Your task to perform on an android device: Add corsair k70 to the cart on costco, then select checkout. Image 0: 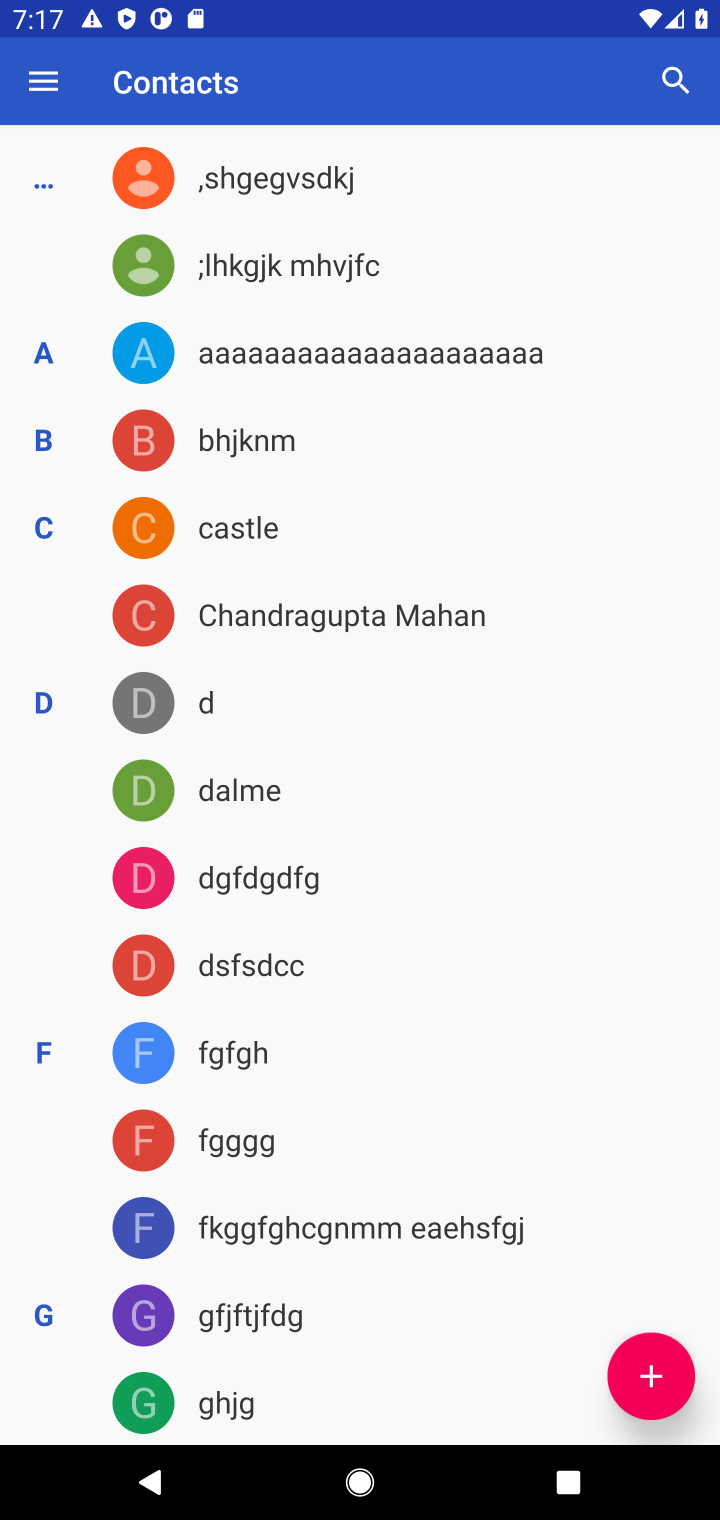
Step 0: press home button
Your task to perform on an android device: Add corsair k70 to the cart on costco, then select checkout. Image 1: 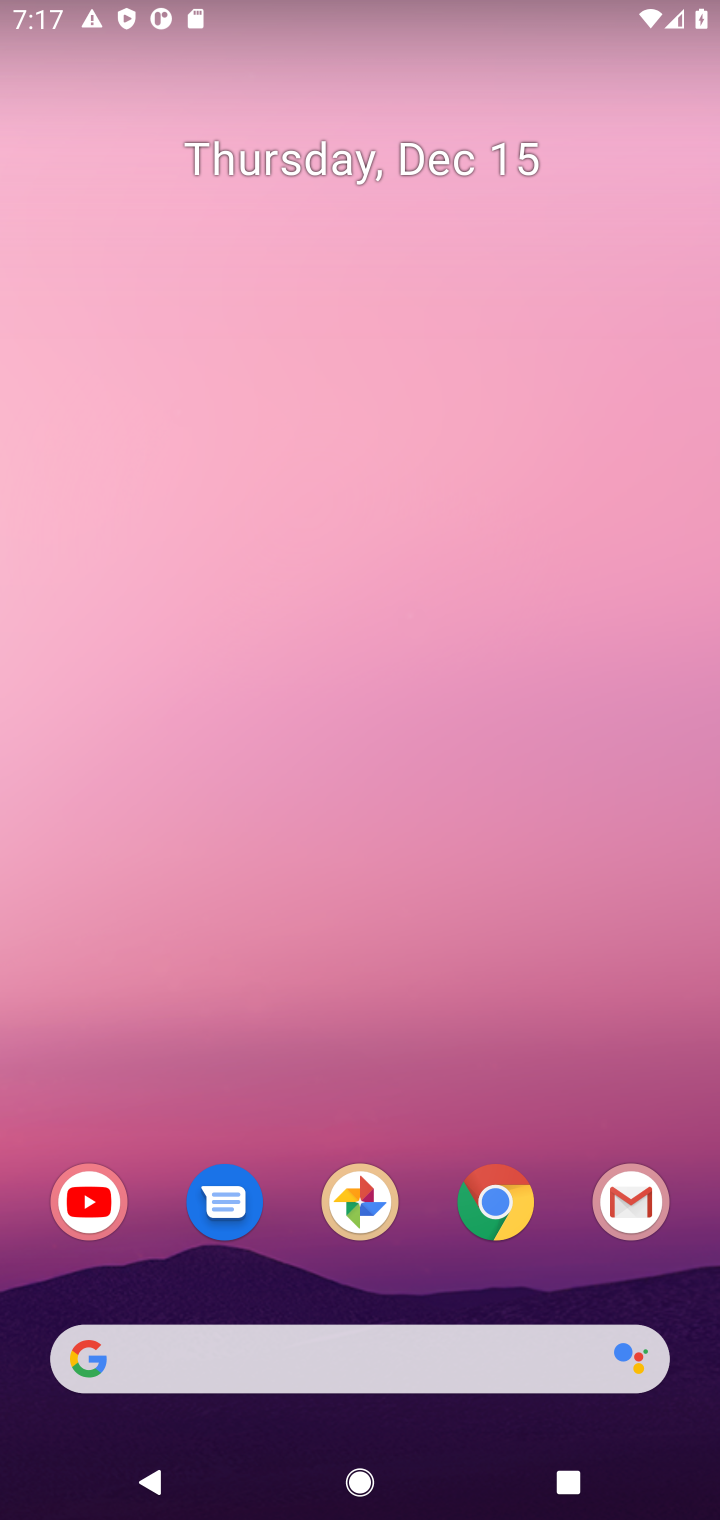
Step 1: click (488, 1196)
Your task to perform on an android device: Add corsair k70 to the cart on costco, then select checkout. Image 2: 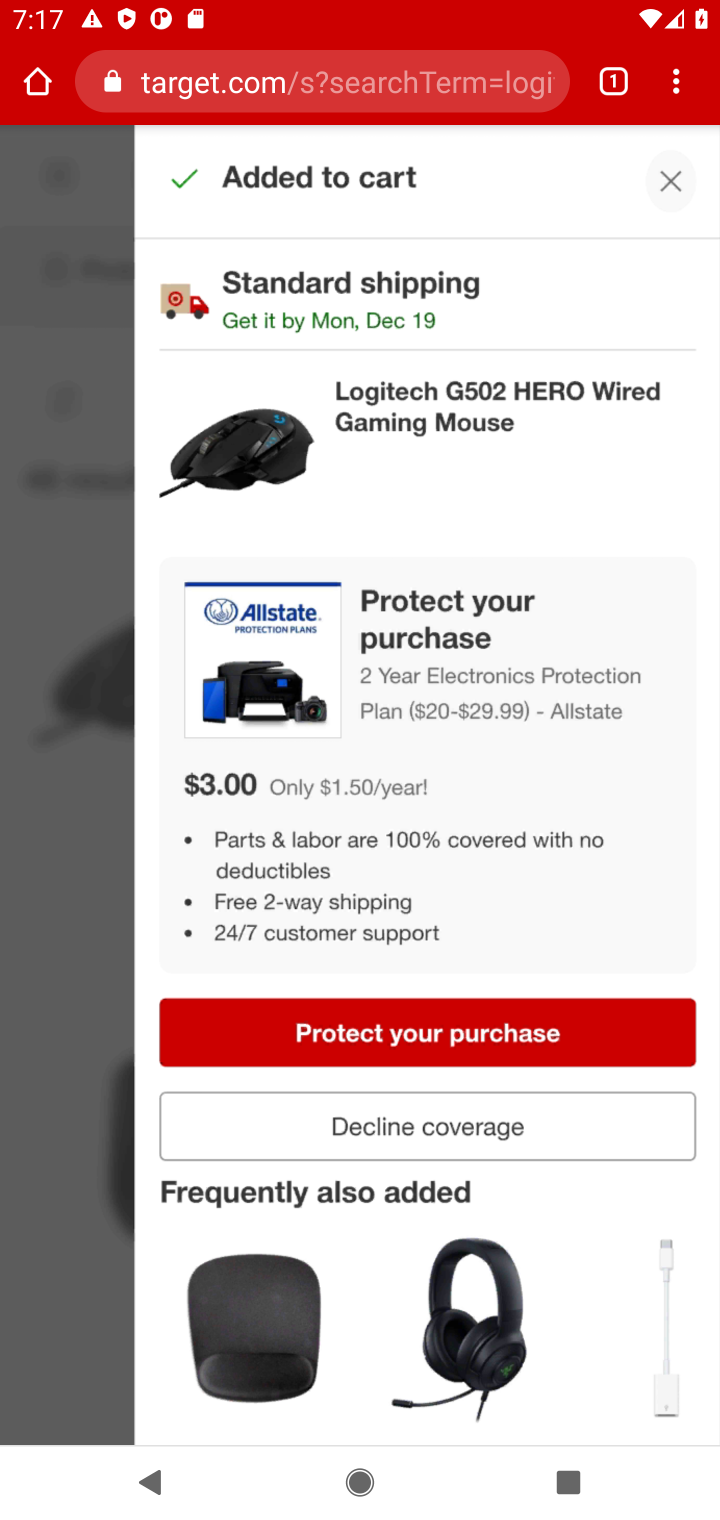
Step 2: click (194, 87)
Your task to perform on an android device: Add corsair k70 to the cart on costco, then select checkout. Image 3: 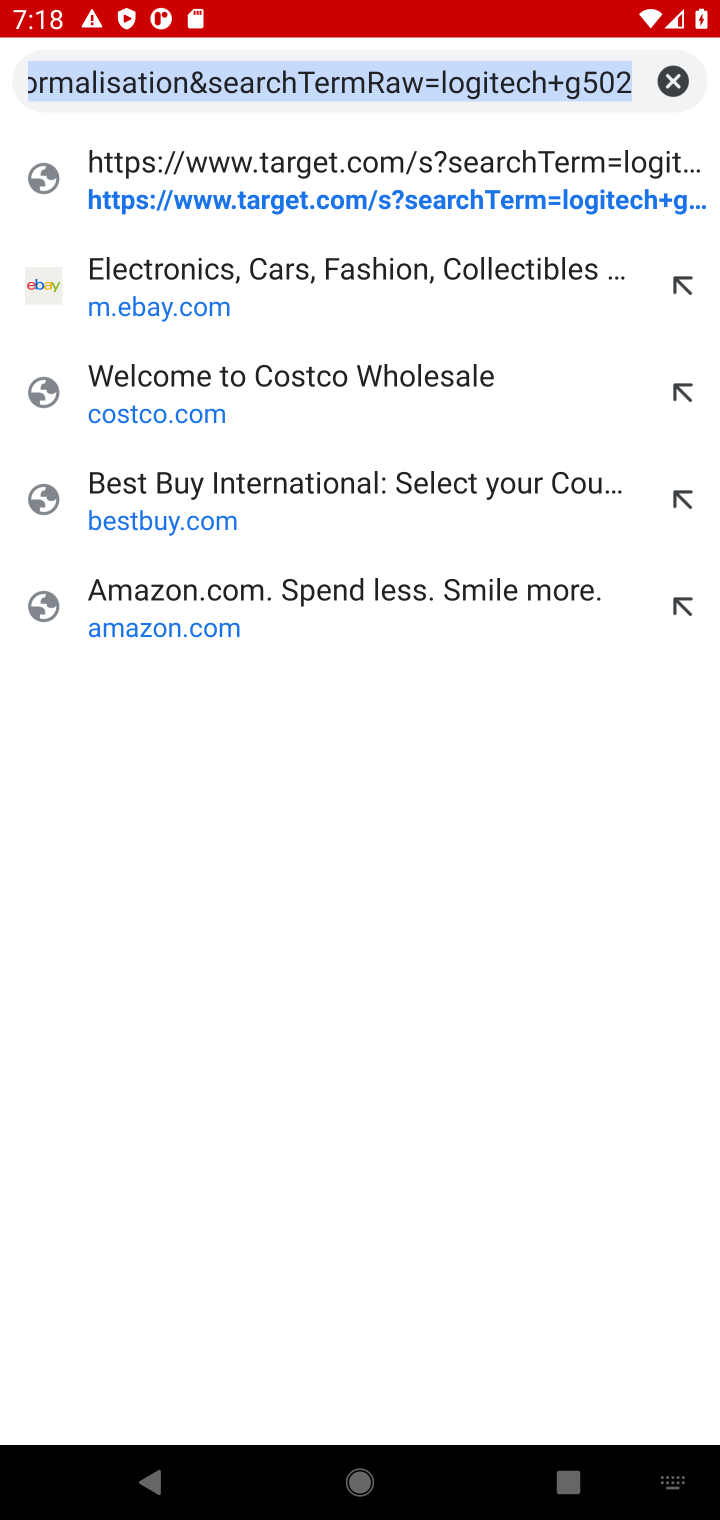
Step 3: click (185, 413)
Your task to perform on an android device: Add corsair k70 to the cart on costco, then select checkout. Image 4: 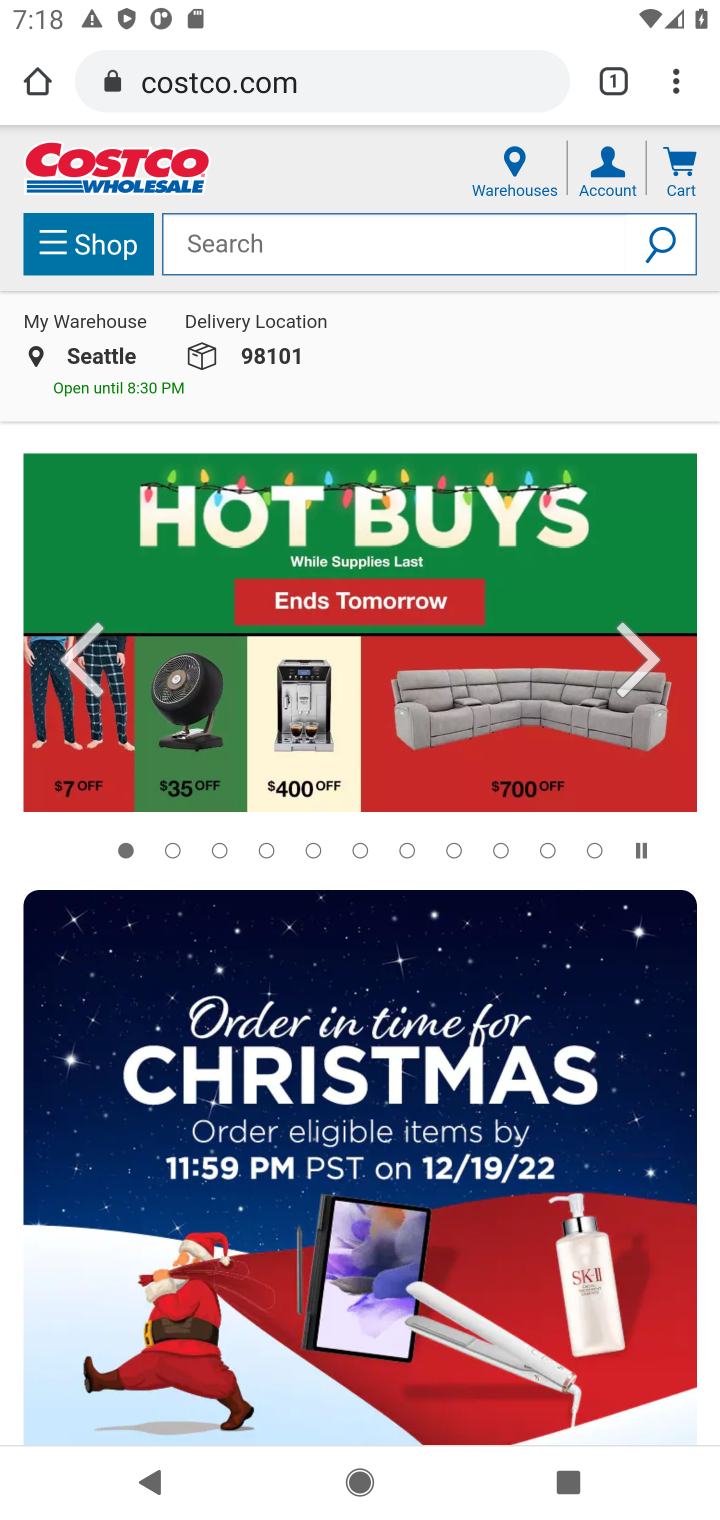
Step 4: click (250, 233)
Your task to perform on an android device: Add corsair k70 to the cart on costco, then select checkout. Image 5: 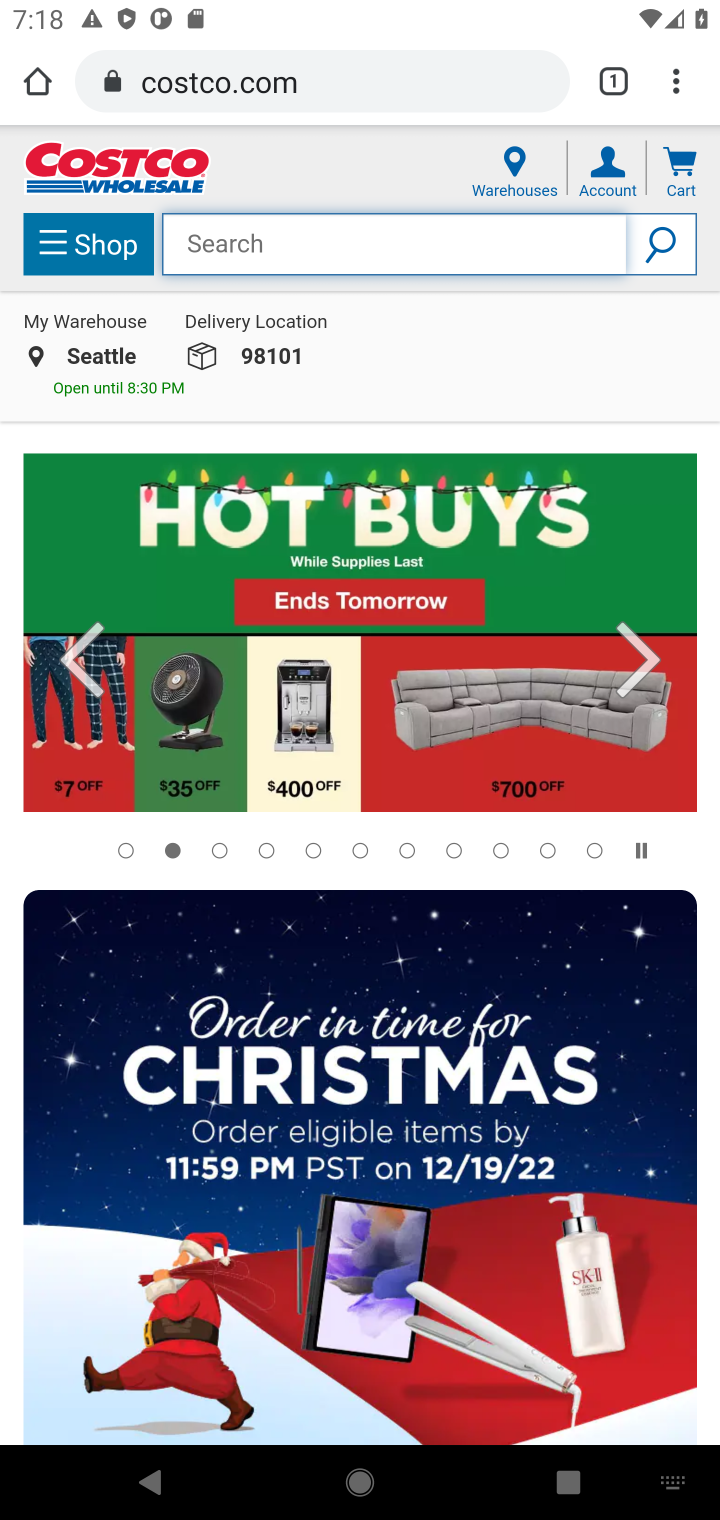
Step 5: type "corsair k70"
Your task to perform on an android device: Add corsair k70 to the cart on costco, then select checkout. Image 6: 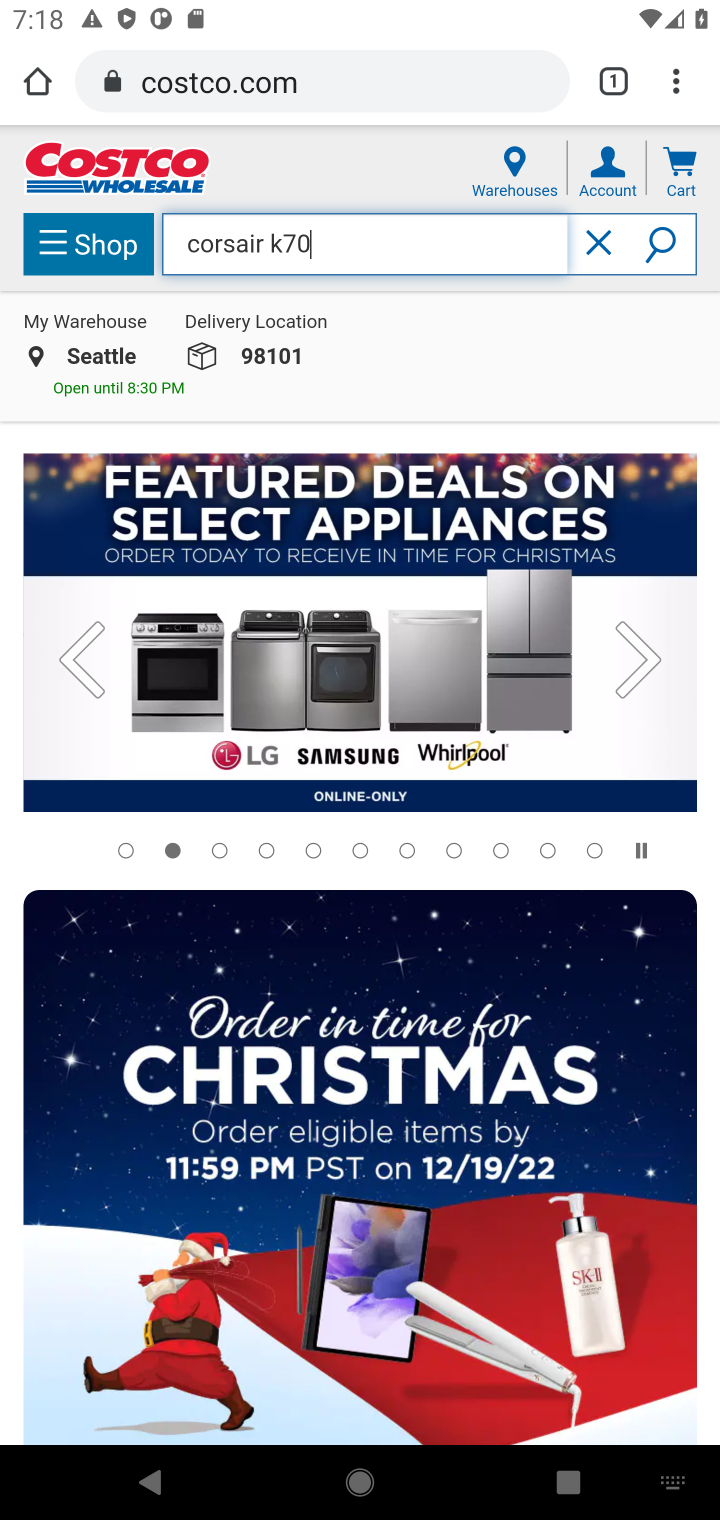
Step 6: click (660, 248)
Your task to perform on an android device: Add corsair k70 to the cart on costco, then select checkout. Image 7: 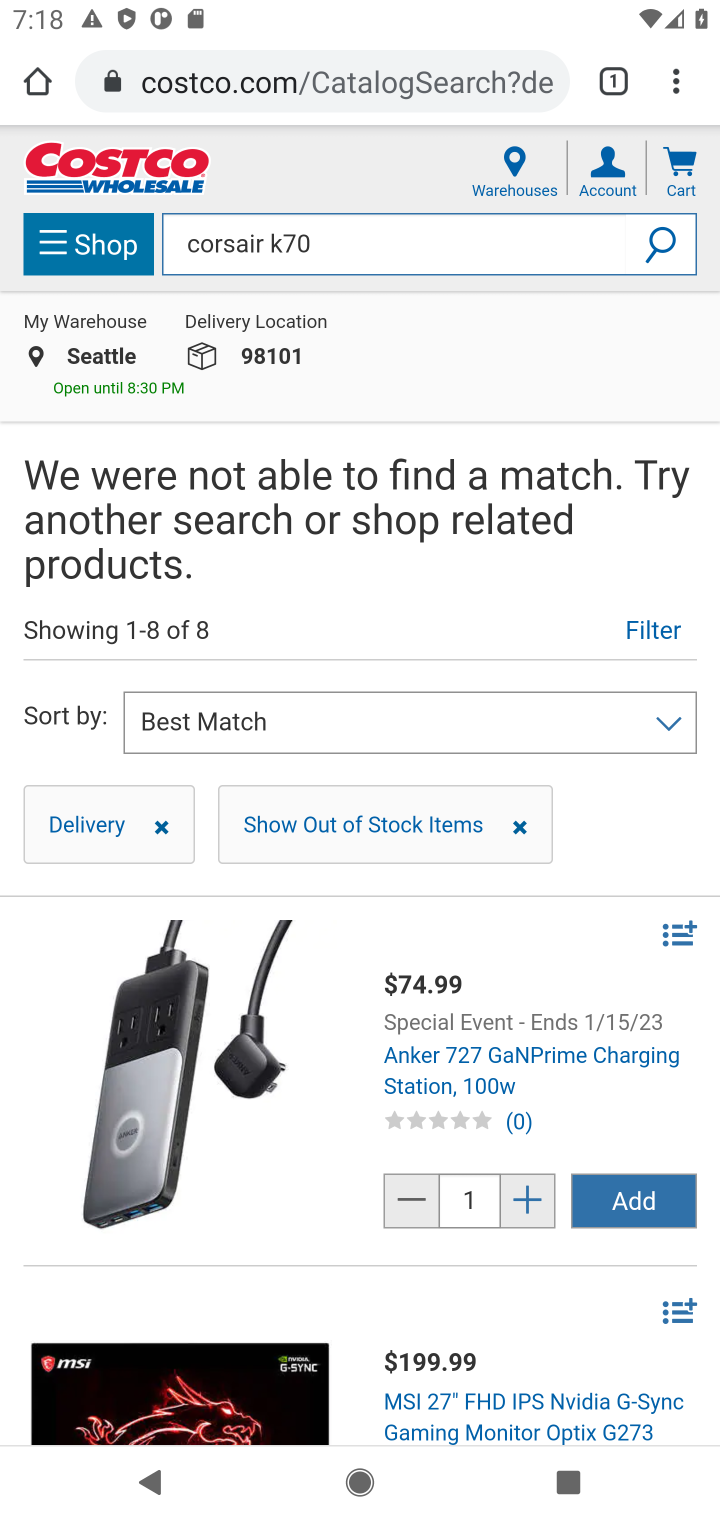
Step 7: task complete